Your task to perform on an android device: show emergency info Image 0: 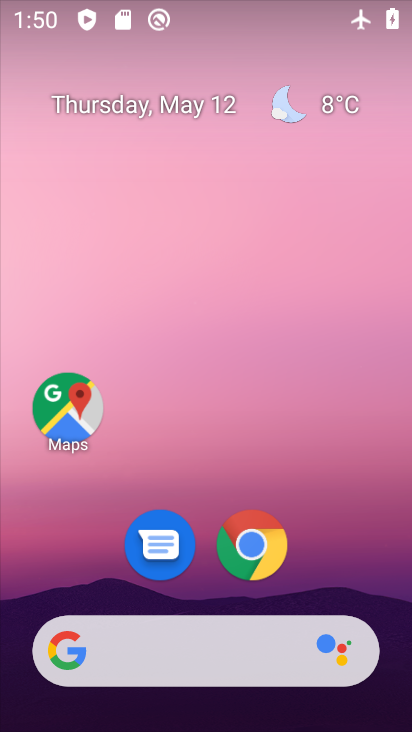
Step 0: drag from (380, 573) to (336, 23)
Your task to perform on an android device: show emergency info Image 1: 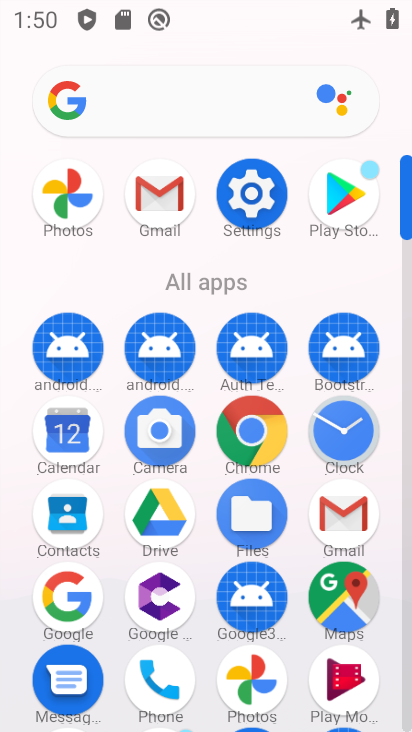
Step 1: click (406, 687)
Your task to perform on an android device: show emergency info Image 2: 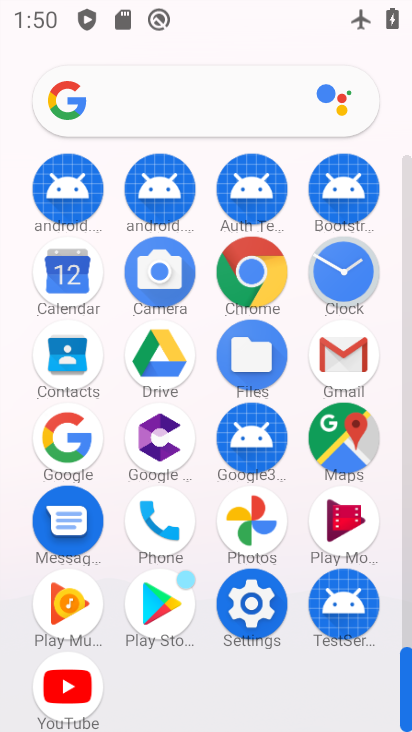
Step 2: click (250, 604)
Your task to perform on an android device: show emergency info Image 3: 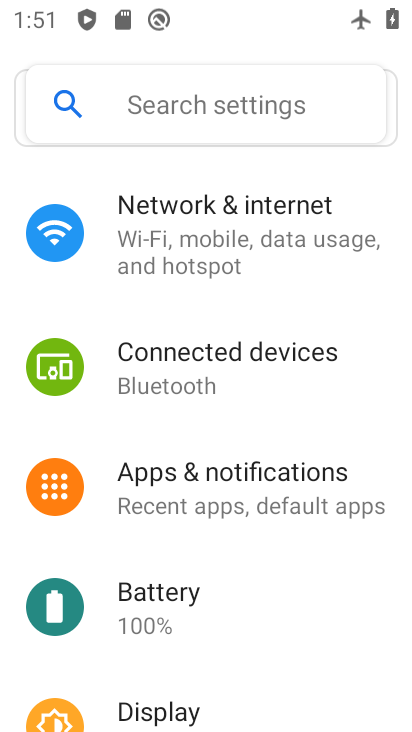
Step 3: drag from (319, 641) to (334, 8)
Your task to perform on an android device: show emergency info Image 4: 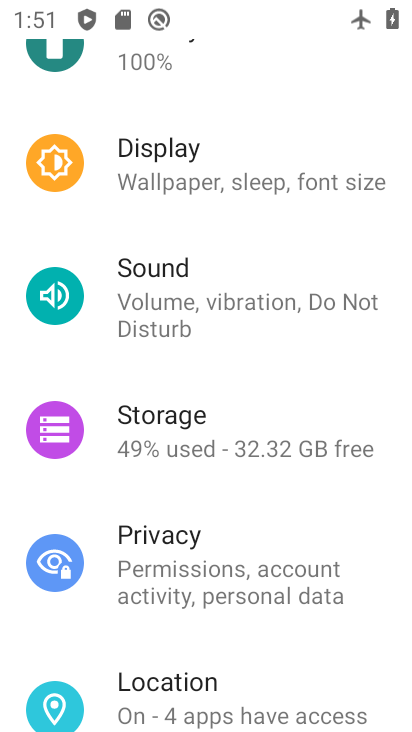
Step 4: drag from (313, 658) to (305, 208)
Your task to perform on an android device: show emergency info Image 5: 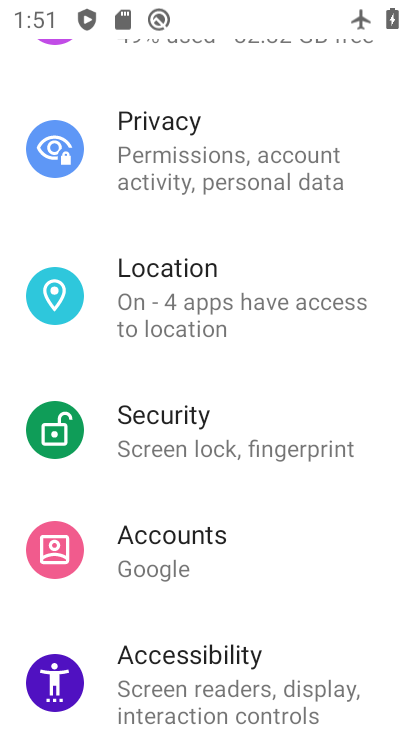
Step 5: drag from (361, 652) to (363, 92)
Your task to perform on an android device: show emergency info Image 6: 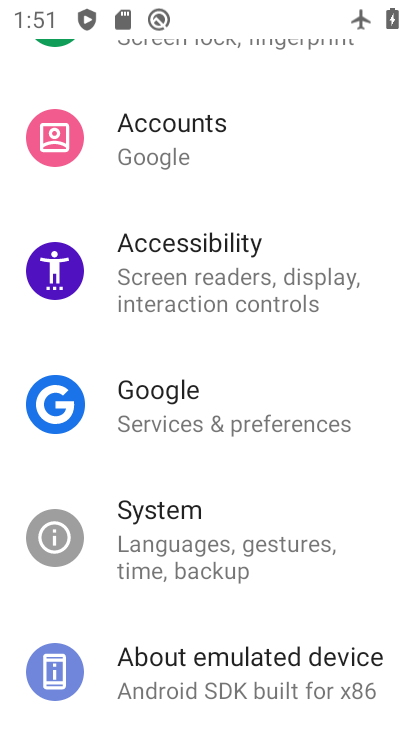
Step 6: drag from (359, 649) to (320, 233)
Your task to perform on an android device: show emergency info Image 7: 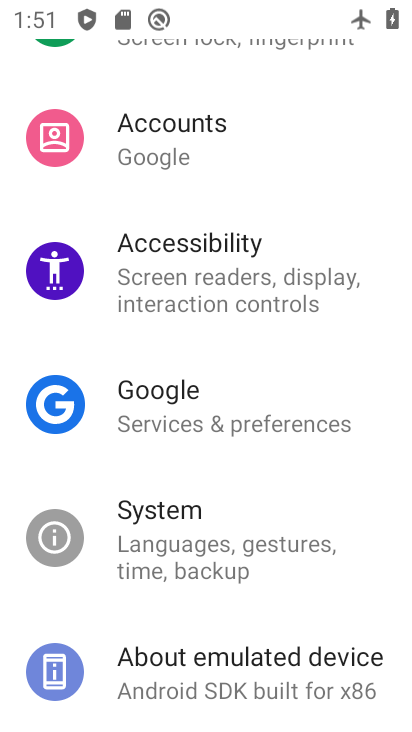
Step 7: click (213, 664)
Your task to perform on an android device: show emergency info Image 8: 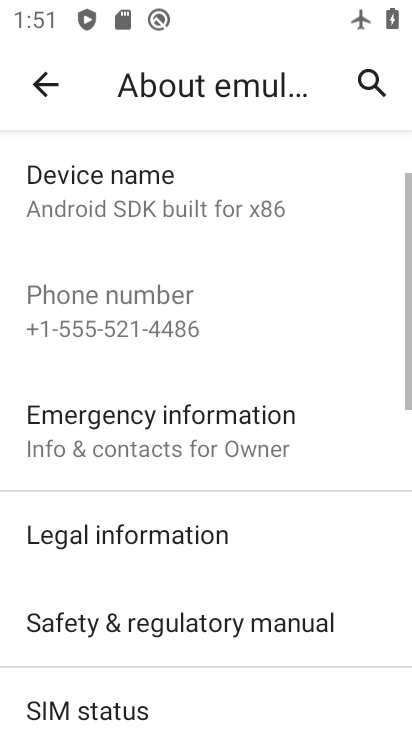
Step 8: click (120, 424)
Your task to perform on an android device: show emergency info Image 9: 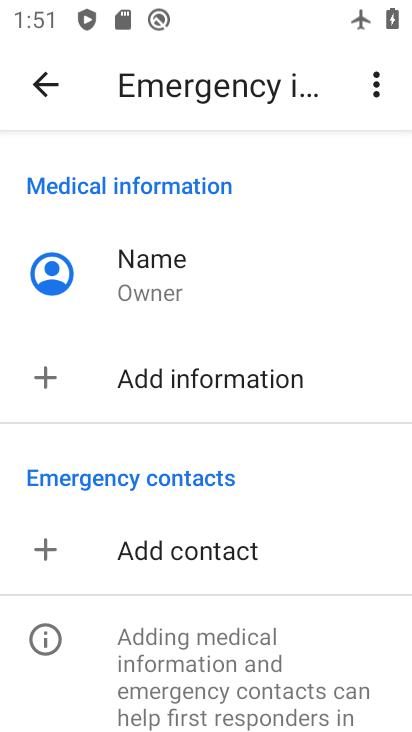
Step 9: task complete